Your task to perform on an android device: What's the weather going to be this weekend? Image 0: 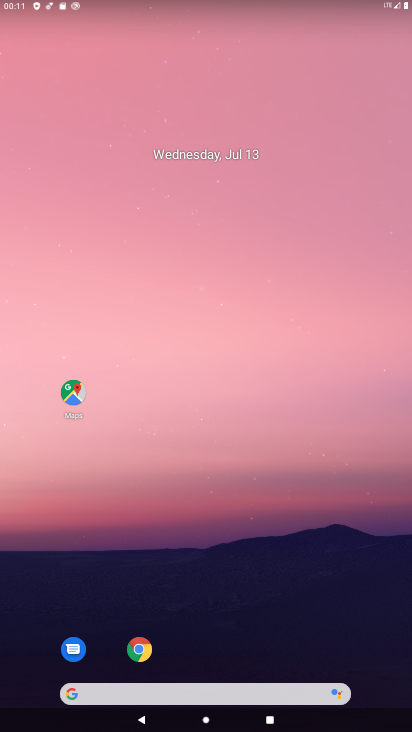
Step 0: drag from (262, 664) to (286, 105)
Your task to perform on an android device: What's the weather going to be this weekend? Image 1: 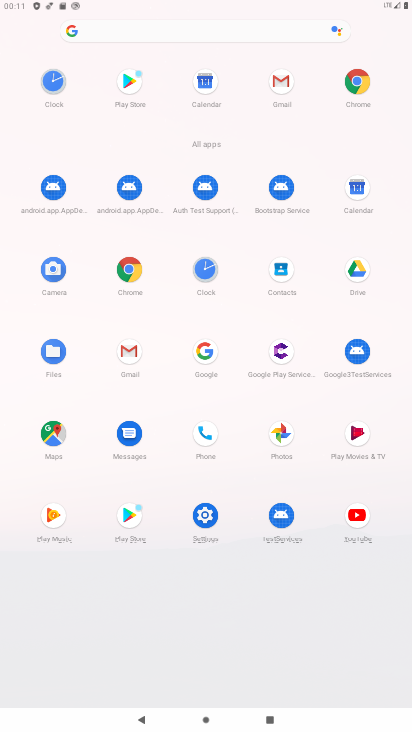
Step 1: drag from (236, 106) to (256, 697)
Your task to perform on an android device: What's the weather going to be this weekend? Image 2: 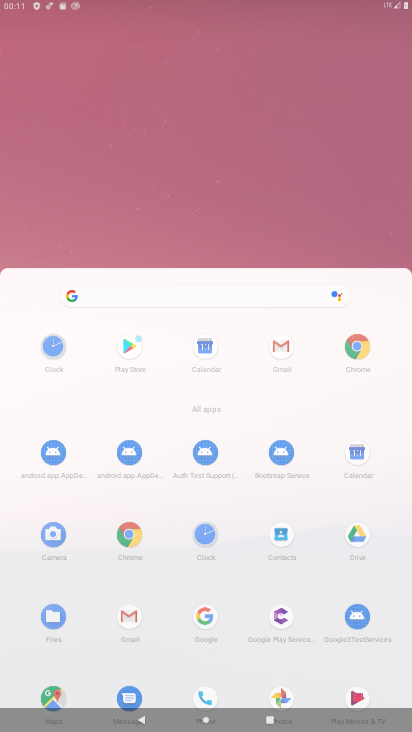
Step 2: drag from (145, 44) to (218, 514)
Your task to perform on an android device: What's the weather going to be this weekend? Image 3: 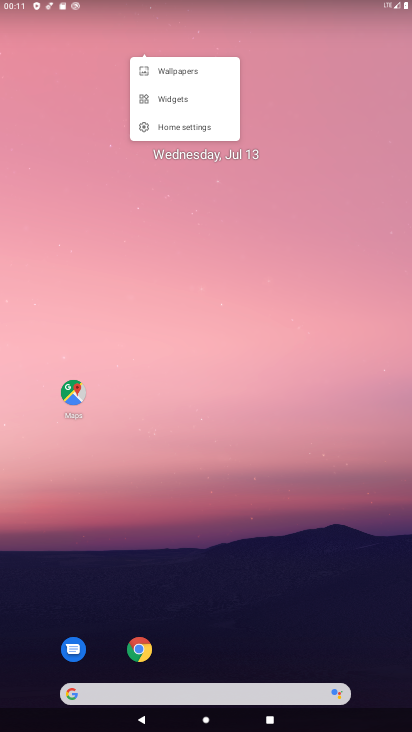
Step 3: click (238, 437)
Your task to perform on an android device: What's the weather going to be this weekend? Image 4: 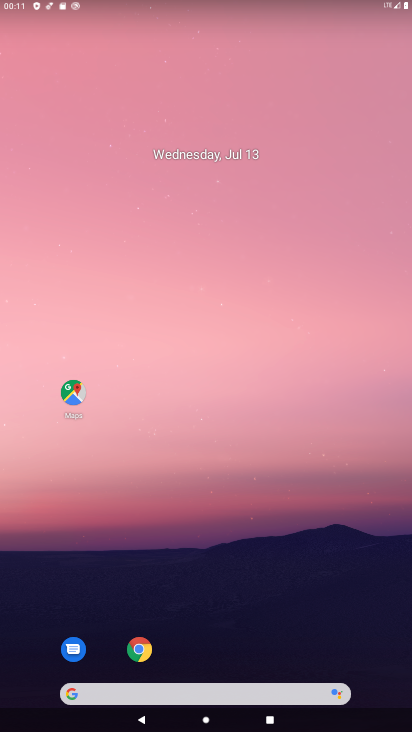
Step 4: click (201, 685)
Your task to perform on an android device: What's the weather going to be this weekend? Image 5: 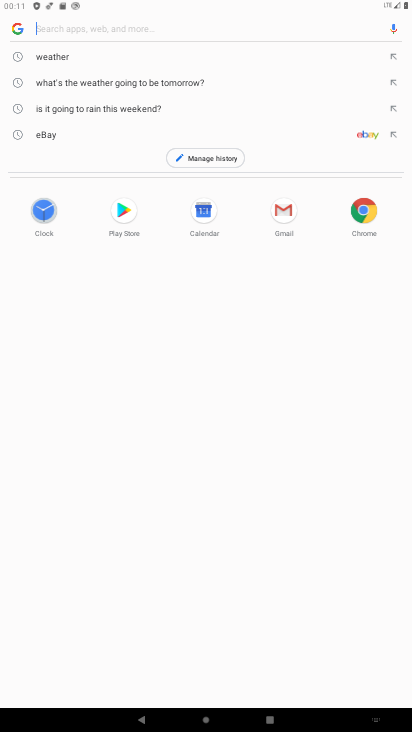
Step 5: type "weather this weekend"
Your task to perform on an android device: What's the weather going to be this weekend? Image 6: 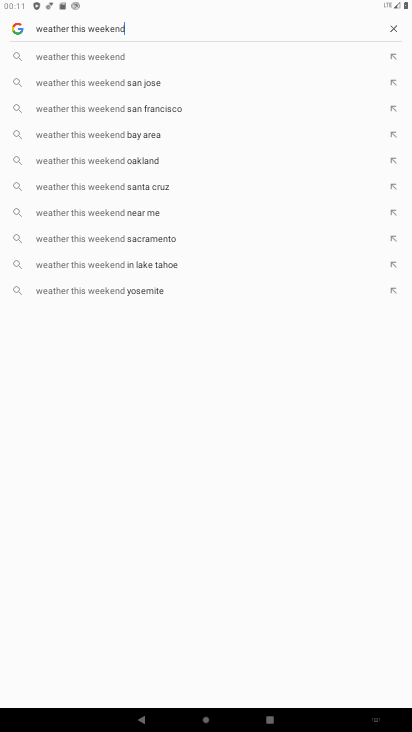
Step 6: click (123, 61)
Your task to perform on an android device: What's the weather going to be this weekend? Image 7: 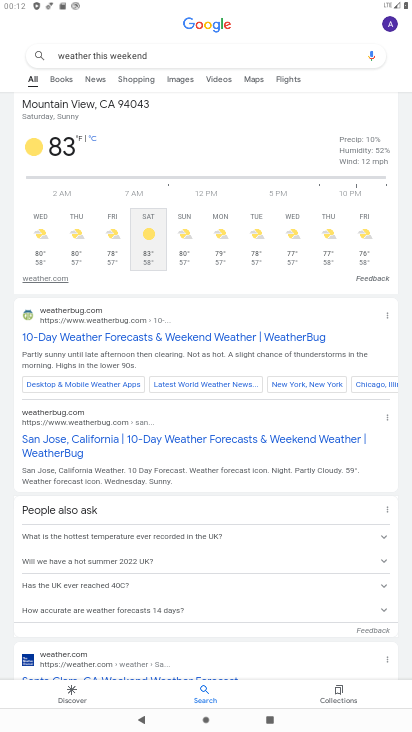
Step 7: task complete